Your task to perform on an android device: Open maps Image 0: 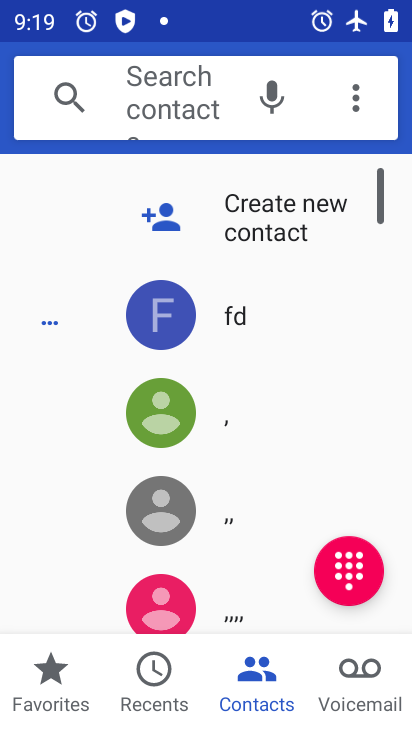
Step 0: drag from (239, 4) to (260, 313)
Your task to perform on an android device: Open maps Image 1: 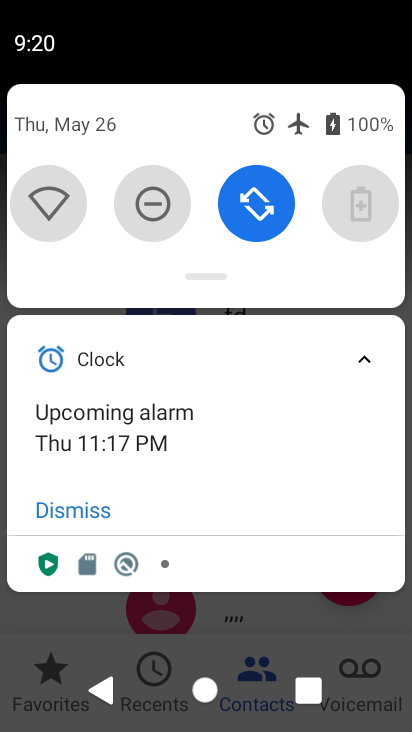
Step 1: click (49, 203)
Your task to perform on an android device: Open maps Image 2: 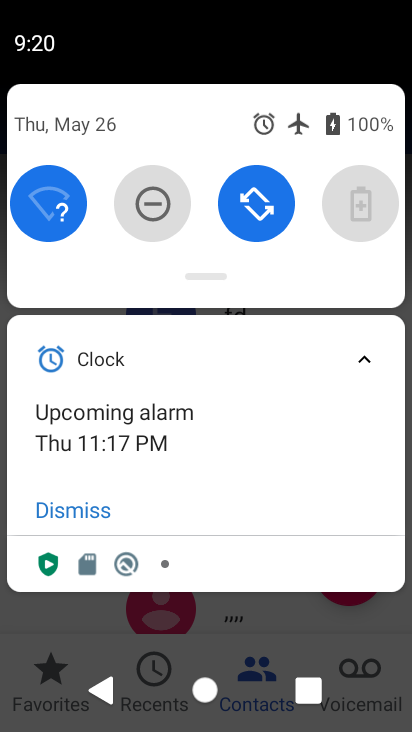
Step 2: drag from (37, 617) to (45, 153)
Your task to perform on an android device: Open maps Image 3: 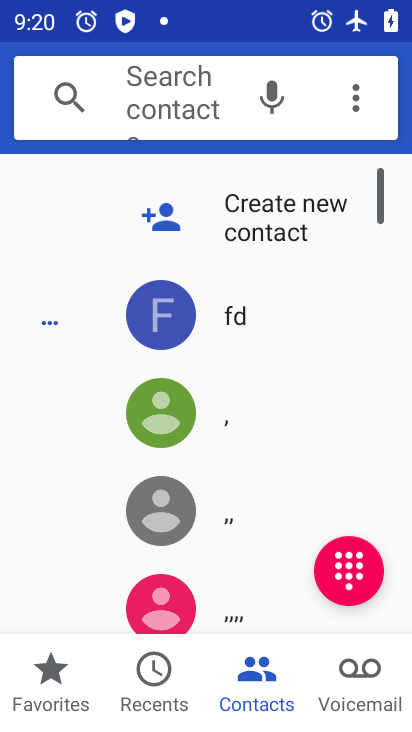
Step 3: press back button
Your task to perform on an android device: Open maps Image 4: 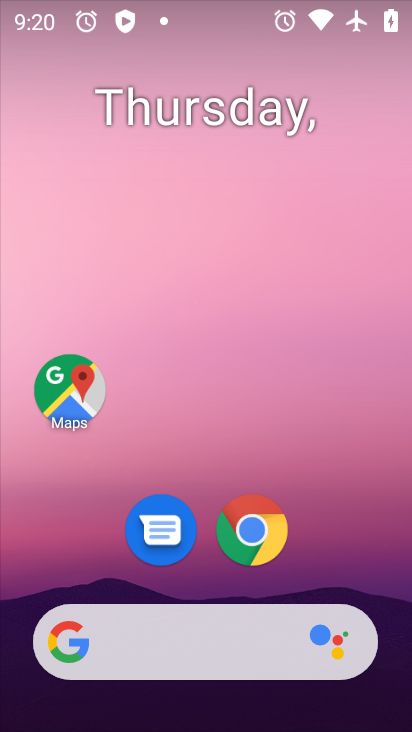
Step 4: click (65, 382)
Your task to perform on an android device: Open maps Image 5: 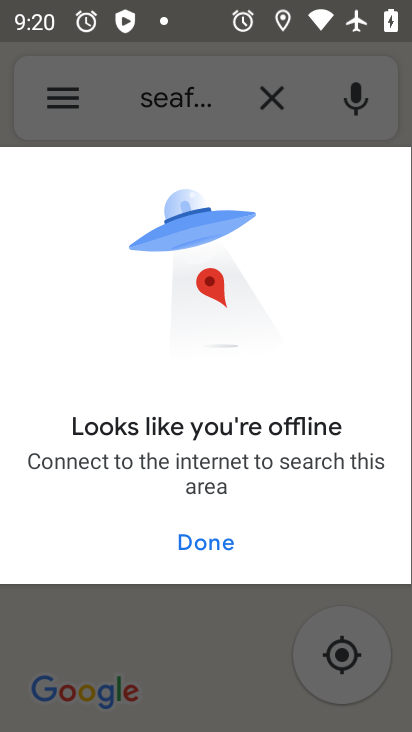
Step 5: click (195, 547)
Your task to perform on an android device: Open maps Image 6: 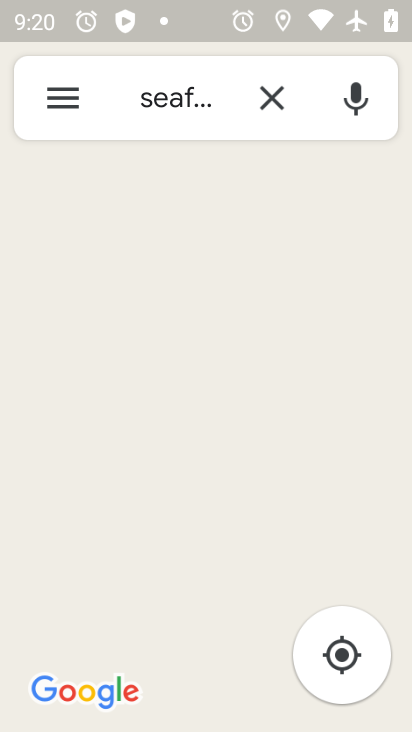
Step 6: click (262, 90)
Your task to perform on an android device: Open maps Image 7: 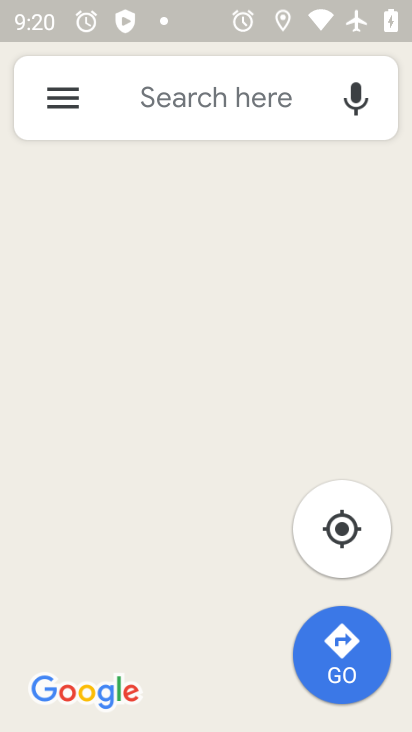
Step 7: task complete